Your task to perform on an android device: turn on the 24-hour format for clock Image 0: 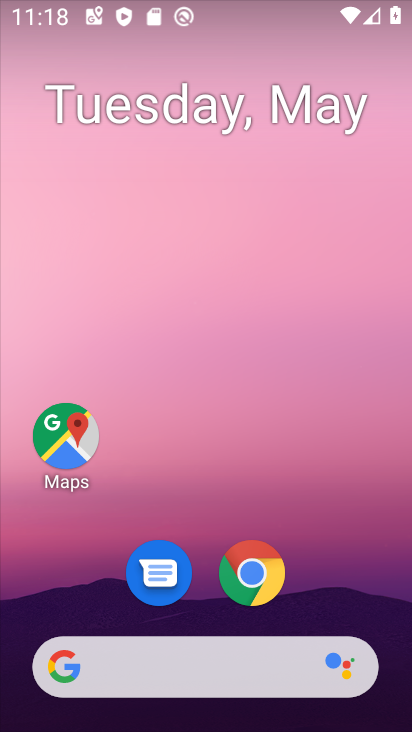
Step 0: drag from (284, 322) to (271, 199)
Your task to perform on an android device: turn on the 24-hour format for clock Image 1: 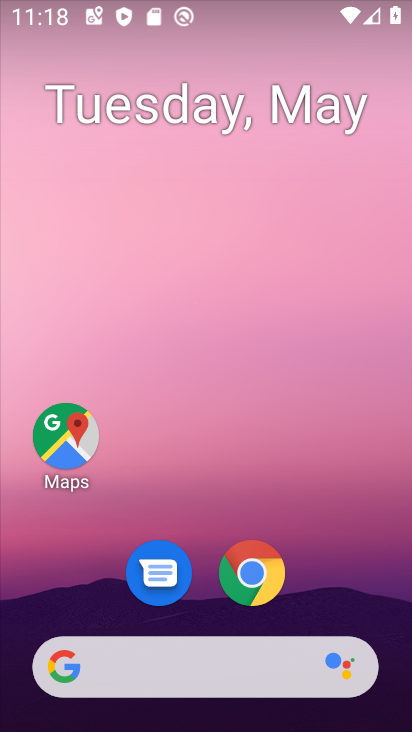
Step 1: drag from (291, 603) to (269, 249)
Your task to perform on an android device: turn on the 24-hour format for clock Image 2: 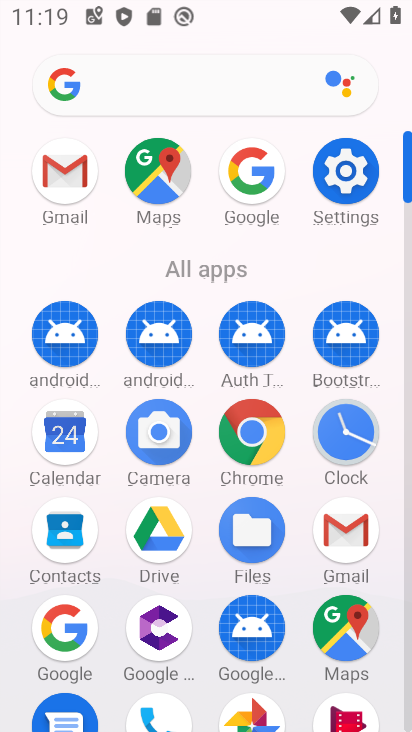
Step 2: click (339, 427)
Your task to perform on an android device: turn on the 24-hour format for clock Image 3: 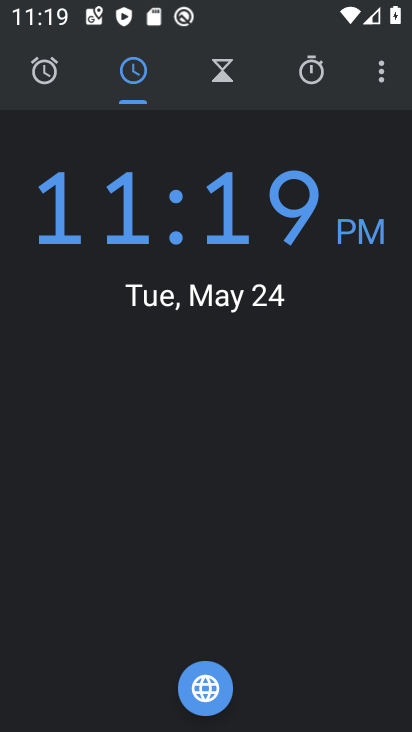
Step 3: click (372, 68)
Your task to perform on an android device: turn on the 24-hour format for clock Image 4: 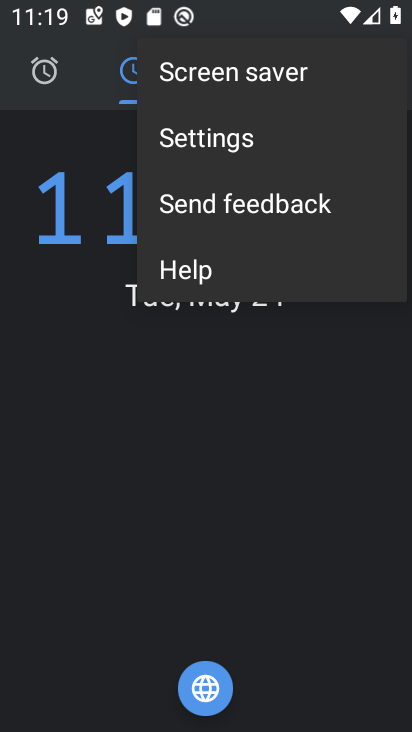
Step 4: click (240, 133)
Your task to perform on an android device: turn on the 24-hour format for clock Image 5: 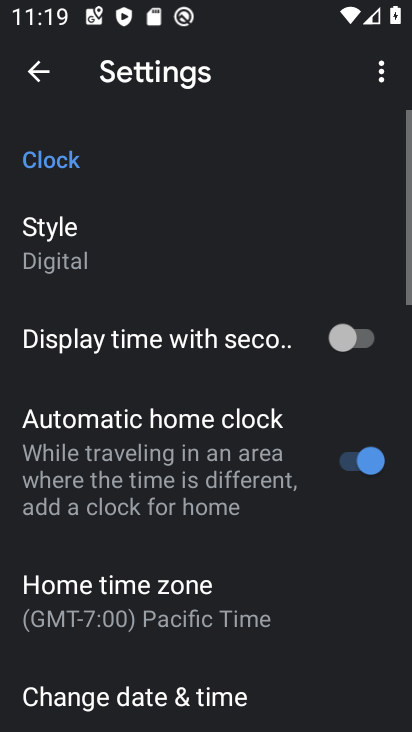
Step 5: drag from (276, 507) to (268, 229)
Your task to perform on an android device: turn on the 24-hour format for clock Image 6: 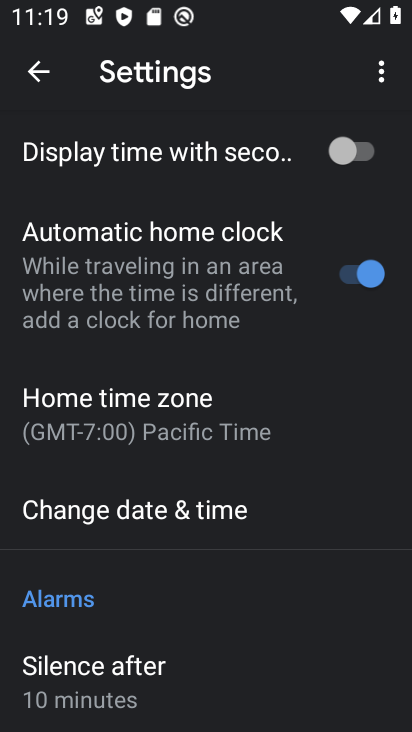
Step 6: click (204, 506)
Your task to perform on an android device: turn on the 24-hour format for clock Image 7: 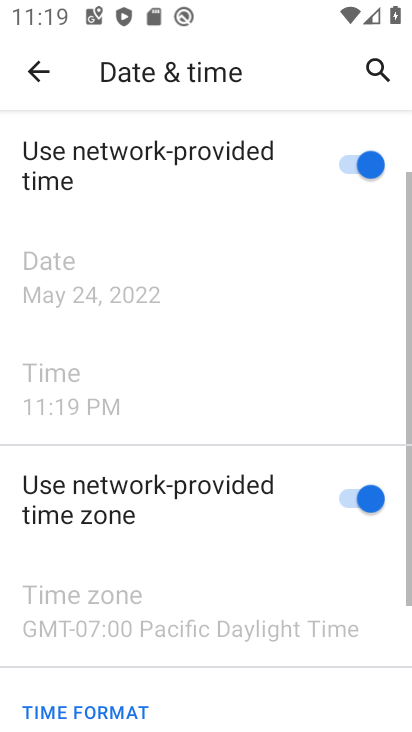
Step 7: drag from (211, 453) to (253, 141)
Your task to perform on an android device: turn on the 24-hour format for clock Image 8: 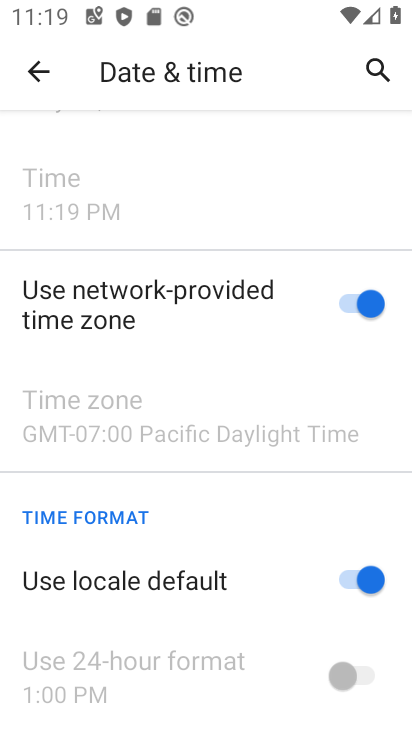
Step 8: drag from (184, 626) to (226, 371)
Your task to perform on an android device: turn on the 24-hour format for clock Image 9: 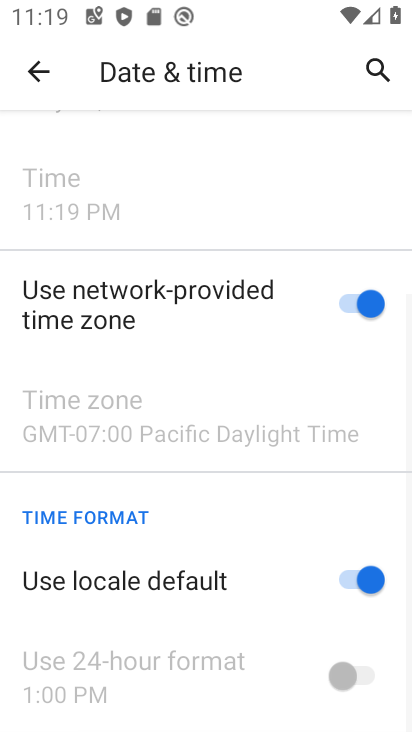
Step 9: click (351, 562)
Your task to perform on an android device: turn on the 24-hour format for clock Image 10: 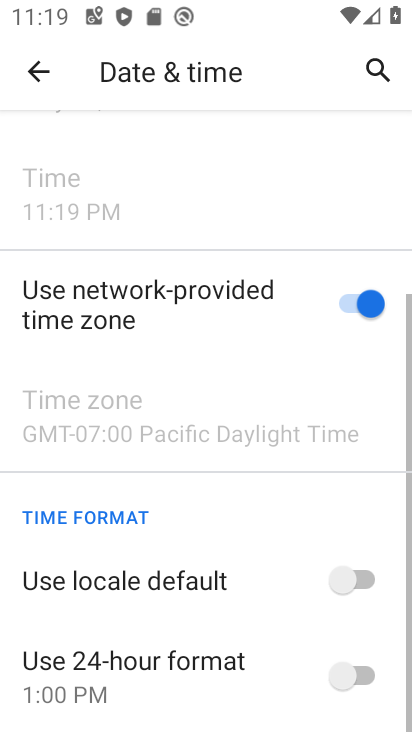
Step 10: click (356, 671)
Your task to perform on an android device: turn on the 24-hour format for clock Image 11: 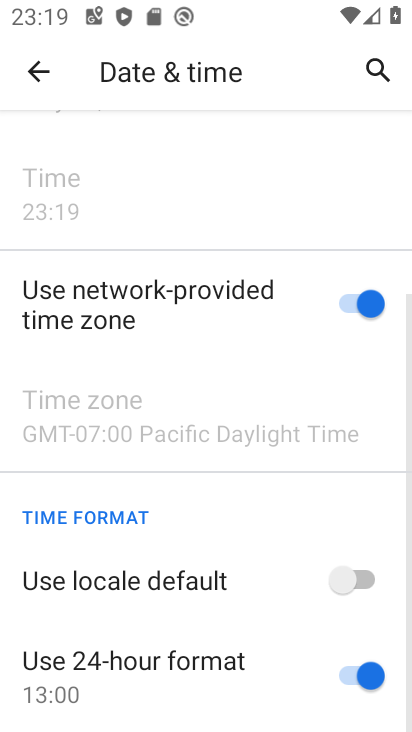
Step 11: task complete